Your task to perform on an android device: turn off javascript in the chrome app Image 0: 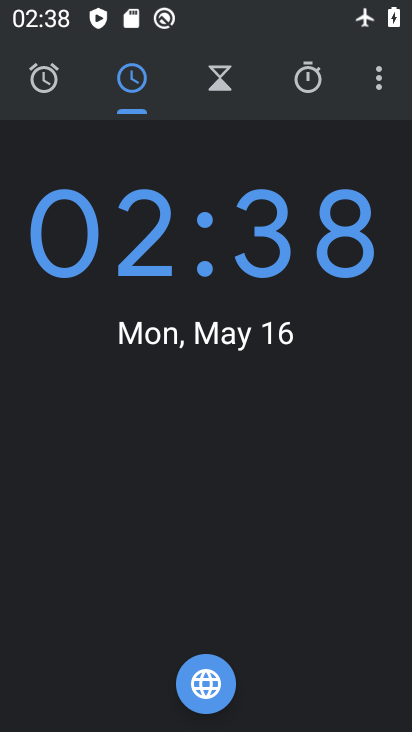
Step 0: press home button
Your task to perform on an android device: turn off javascript in the chrome app Image 1: 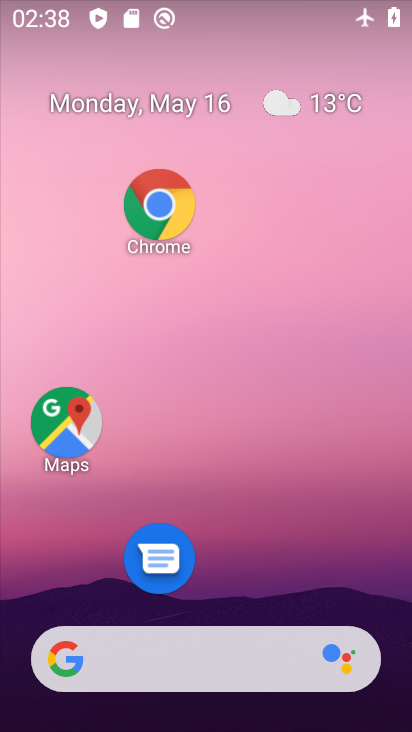
Step 1: drag from (227, 608) to (127, 21)
Your task to perform on an android device: turn off javascript in the chrome app Image 2: 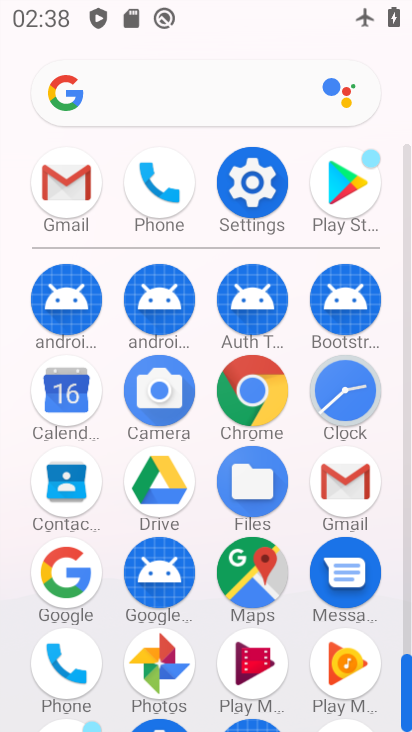
Step 2: click (242, 387)
Your task to perform on an android device: turn off javascript in the chrome app Image 3: 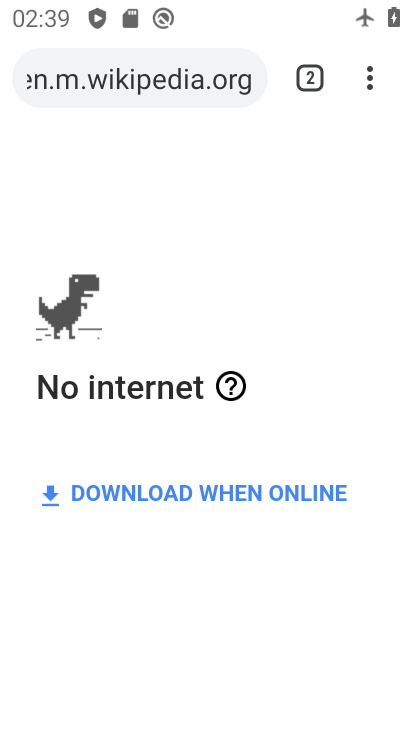
Step 3: click (369, 79)
Your task to perform on an android device: turn off javascript in the chrome app Image 4: 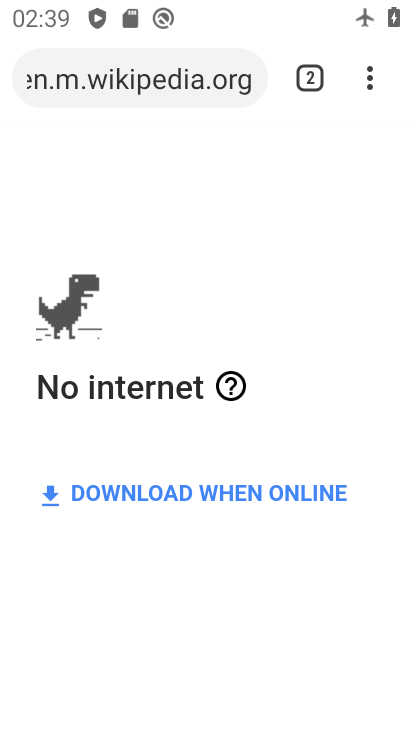
Step 4: click (364, 81)
Your task to perform on an android device: turn off javascript in the chrome app Image 5: 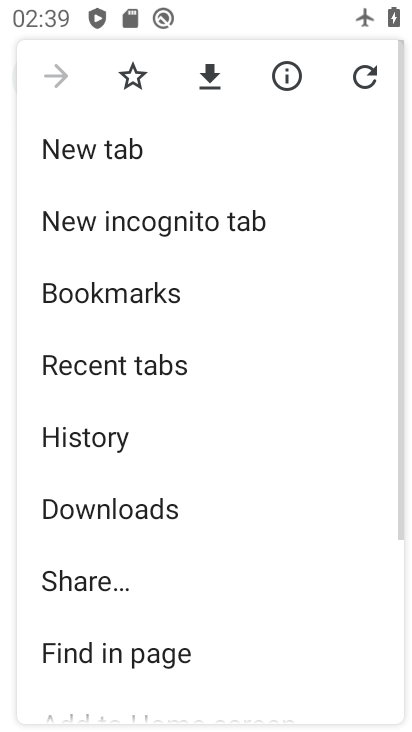
Step 5: drag from (100, 596) to (64, 47)
Your task to perform on an android device: turn off javascript in the chrome app Image 6: 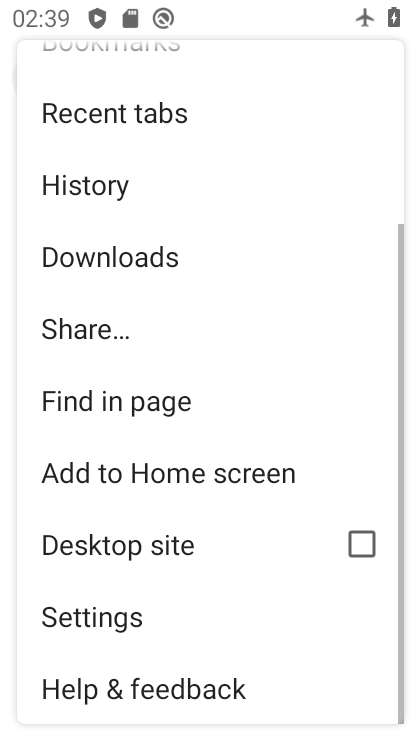
Step 6: click (118, 593)
Your task to perform on an android device: turn off javascript in the chrome app Image 7: 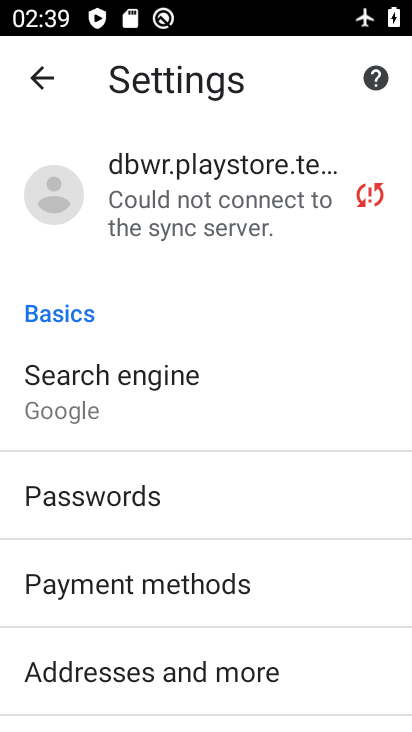
Step 7: drag from (140, 658) to (73, 151)
Your task to perform on an android device: turn off javascript in the chrome app Image 8: 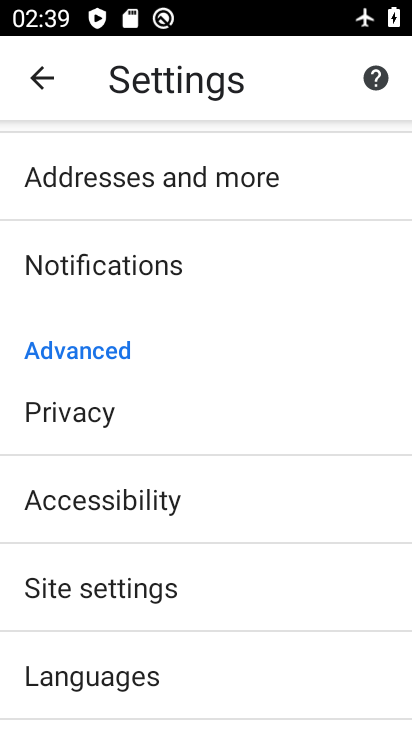
Step 8: click (104, 592)
Your task to perform on an android device: turn off javascript in the chrome app Image 9: 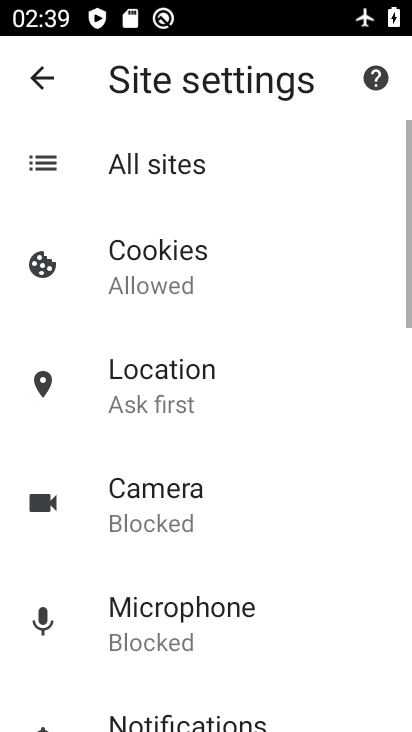
Step 9: drag from (104, 592) to (25, 192)
Your task to perform on an android device: turn off javascript in the chrome app Image 10: 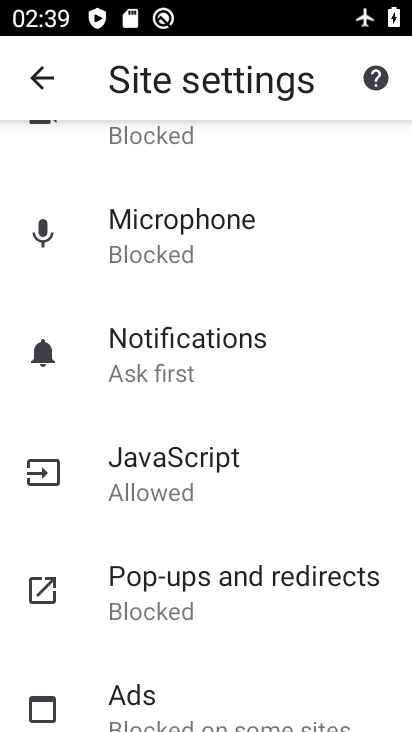
Step 10: click (128, 454)
Your task to perform on an android device: turn off javascript in the chrome app Image 11: 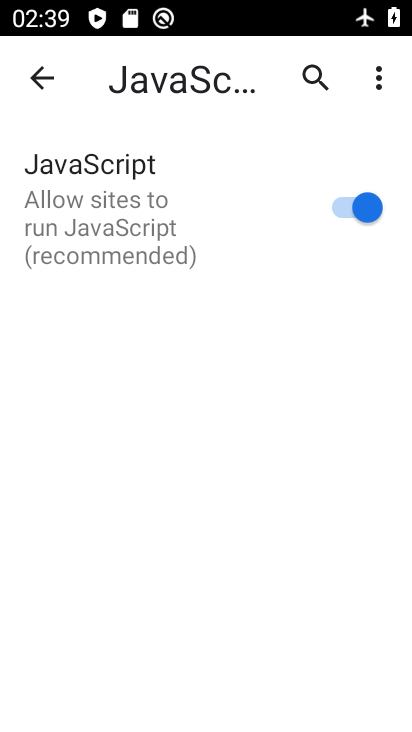
Step 11: click (333, 201)
Your task to perform on an android device: turn off javascript in the chrome app Image 12: 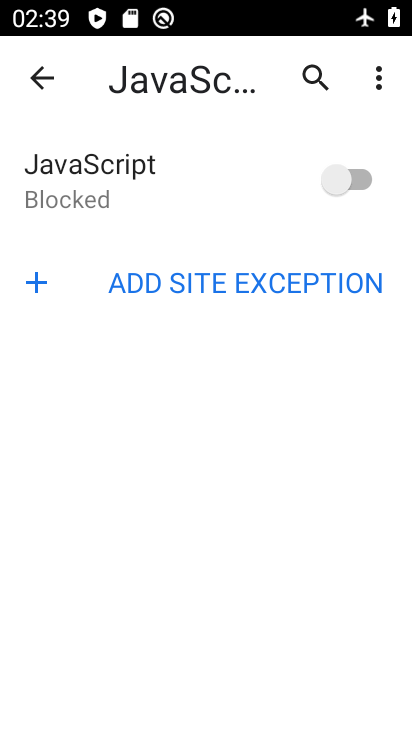
Step 12: task complete